Your task to perform on an android device: turn pop-ups off in chrome Image 0: 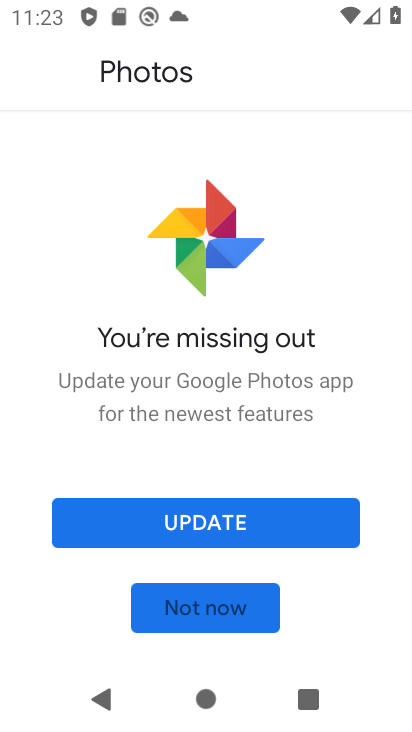
Step 0: press home button
Your task to perform on an android device: turn pop-ups off in chrome Image 1: 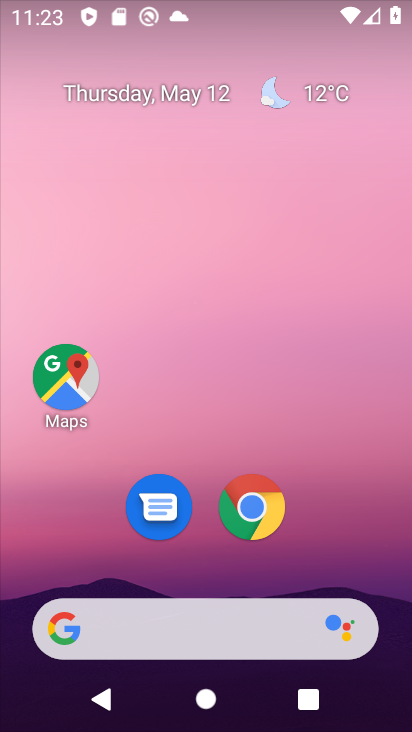
Step 1: drag from (206, 570) to (301, 27)
Your task to perform on an android device: turn pop-ups off in chrome Image 2: 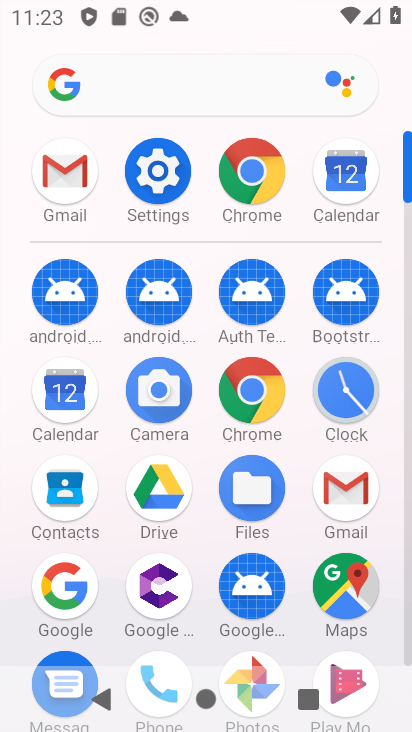
Step 2: click (250, 402)
Your task to perform on an android device: turn pop-ups off in chrome Image 3: 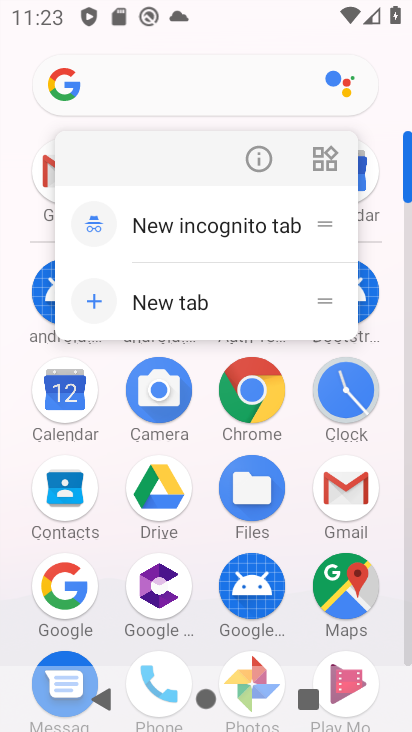
Step 3: click (250, 402)
Your task to perform on an android device: turn pop-ups off in chrome Image 4: 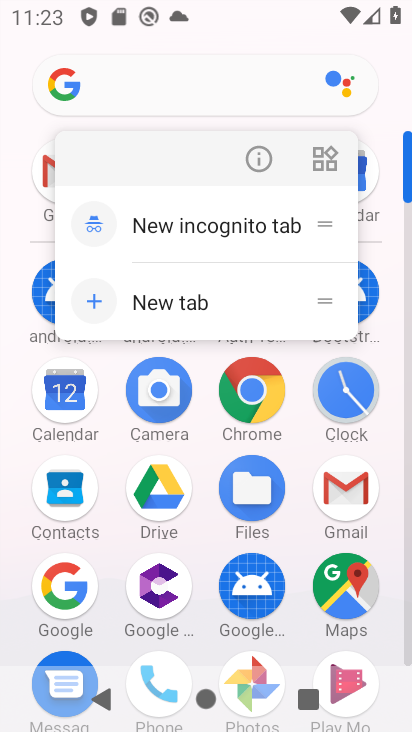
Step 4: click (259, 425)
Your task to perform on an android device: turn pop-ups off in chrome Image 5: 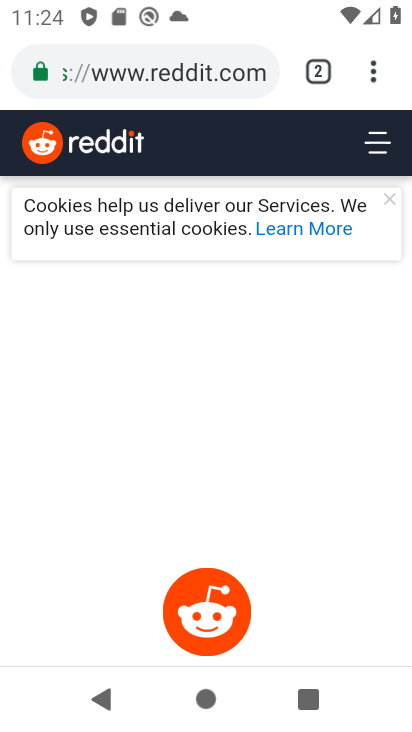
Step 5: click (373, 64)
Your task to perform on an android device: turn pop-ups off in chrome Image 6: 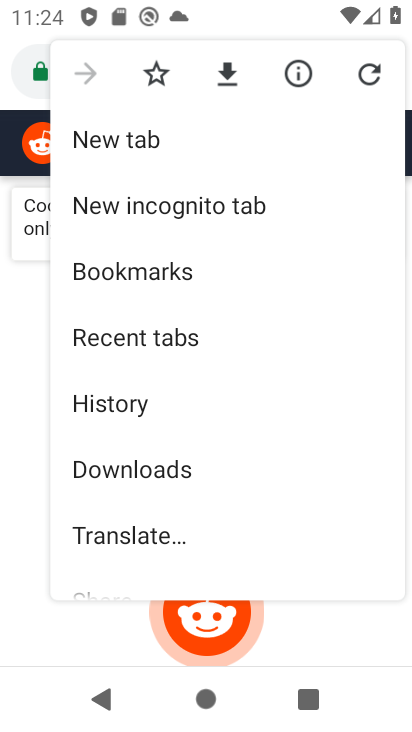
Step 6: drag from (156, 488) to (208, 102)
Your task to perform on an android device: turn pop-ups off in chrome Image 7: 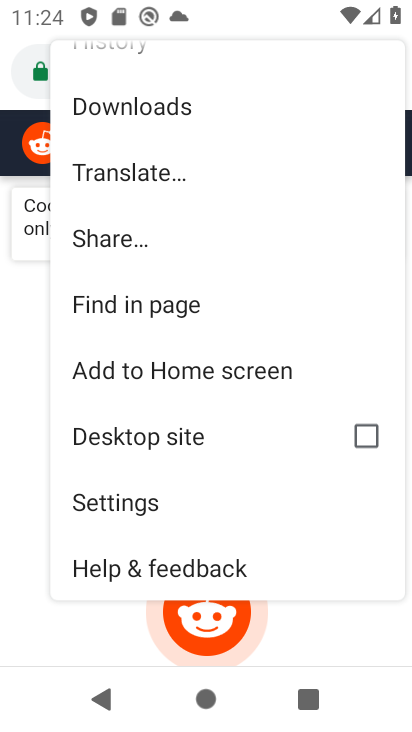
Step 7: click (140, 496)
Your task to perform on an android device: turn pop-ups off in chrome Image 8: 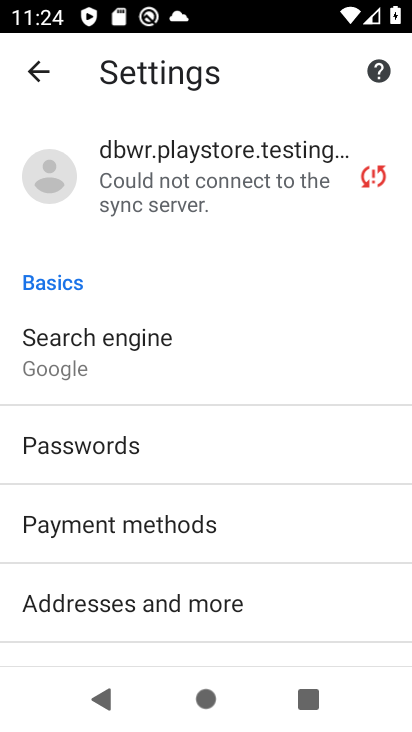
Step 8: drag from (127, 514) to (178, 276)
Your task to perform on an android device: turn pop-ups off in chrome Image 9: 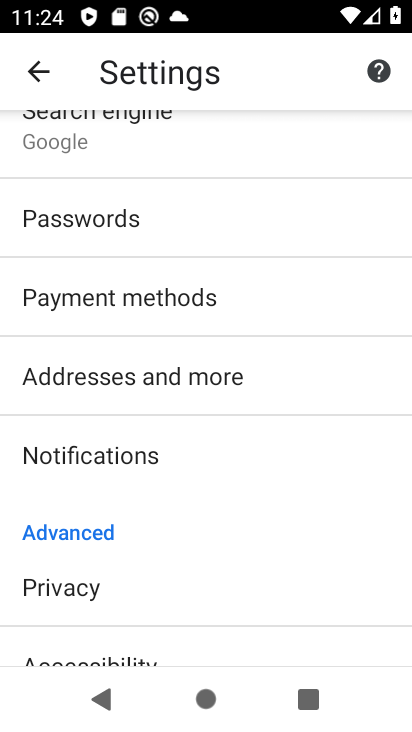
Step 9: drag from (92, 576) to (153, 255)
Your task to perform on an android device: turn pop-ups off in chrome Image 10: 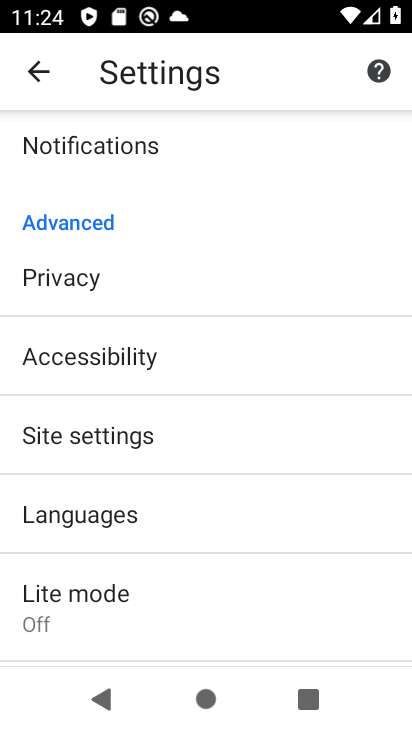
Step 10: click (115, 443)
Your task to perform on an android device: turn pop-ups off in chrome Image 11: 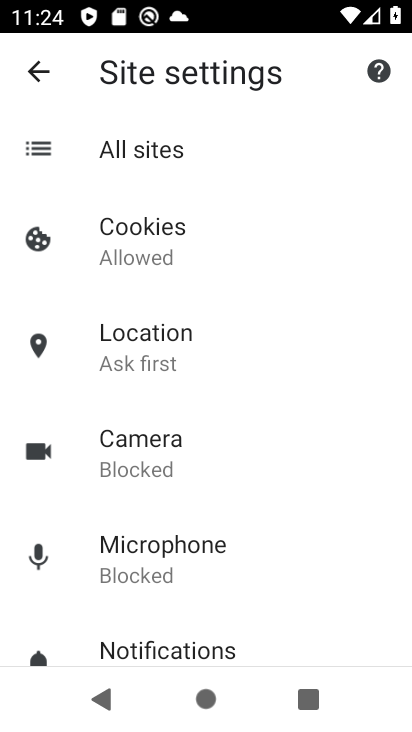
Step 11: drag from (156, 484) to (192, 236)
Your task to perform on an android device: turn pop-ups off in chrome Image 12: 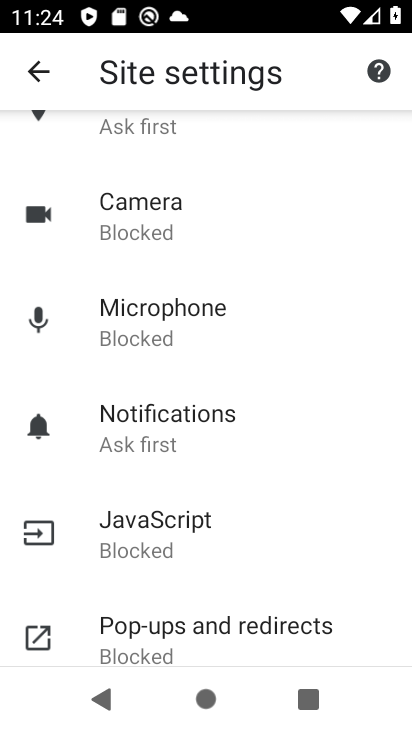
Step 12: drag from (150, 575) to (206, 339)
Your task to perform on an android device: turn pop-ups off in chrome Image 13: 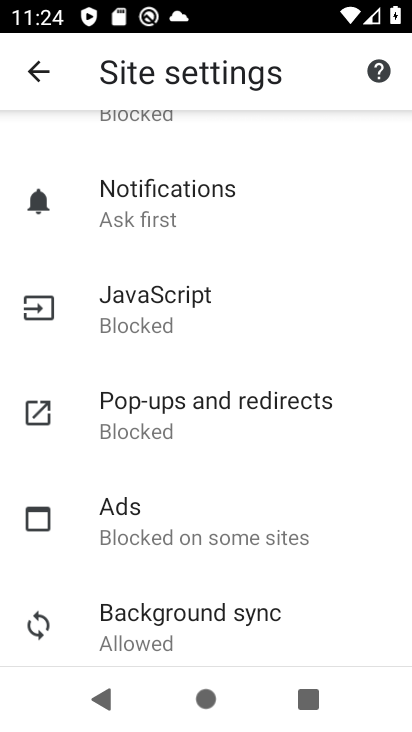
Step 13: click (152, 422)
Your task to perform on an android device: turn pop-ups off in chrome Image 14: 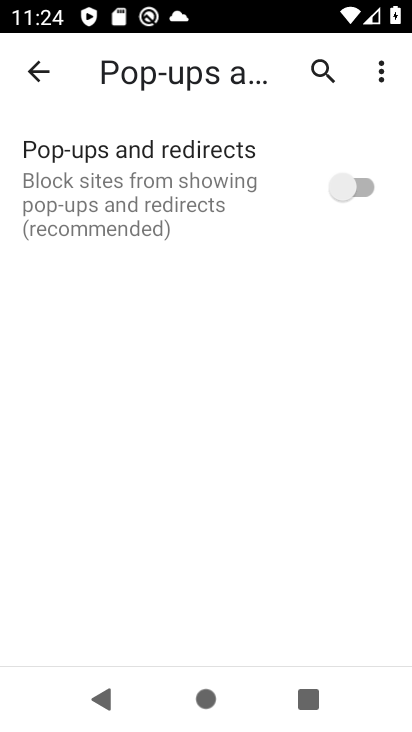
Step 14: task complete